Your task to perform on an android device: turn off javascript in the chrome app Image 0: 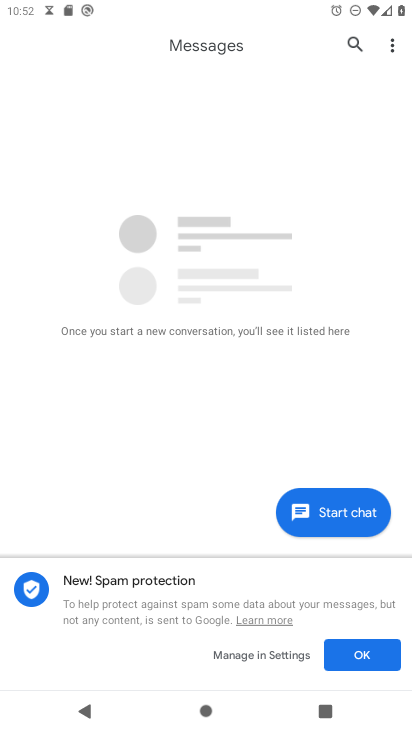
Step 0: press back button
Your task to perform on an android device: turn off javascript in the chrome app Image 1: 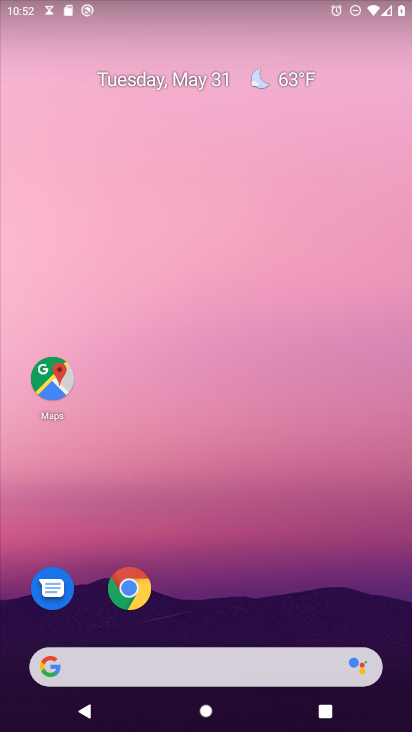
Step 1: click (129, 587)
Your task to perform on an android device: turn off javascript in the chrome app Image 2: 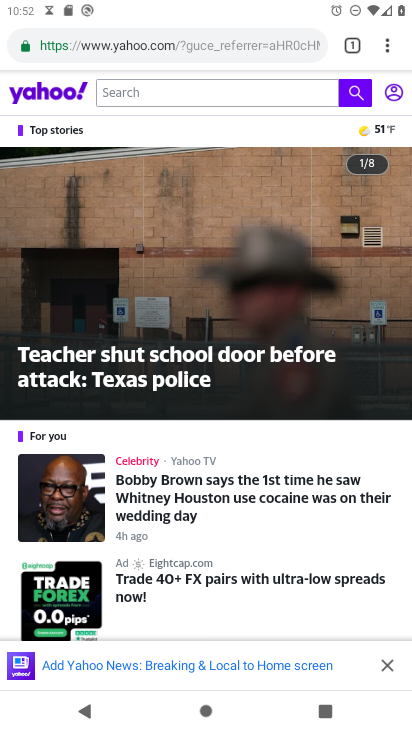
Step 2: click (386, 45)
Your task to perform on an android device: turn off javascript in the chrome app Image 3: 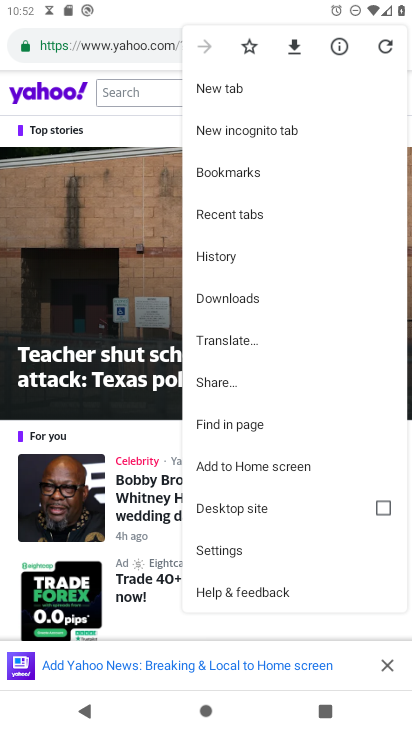
Step 3: click (223, 551)
Your task to perform on an android device: turn off javascript in the chrome app Image 4: 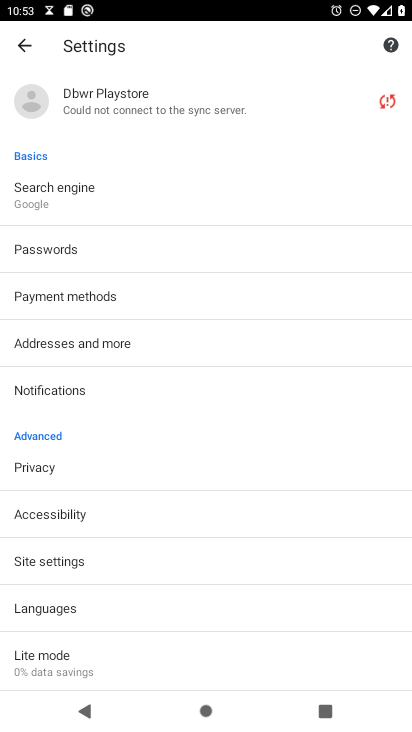
Step 4: click (58, 562)
Your task to perform on an android device: turn off javascript in the chrome app Image 5: 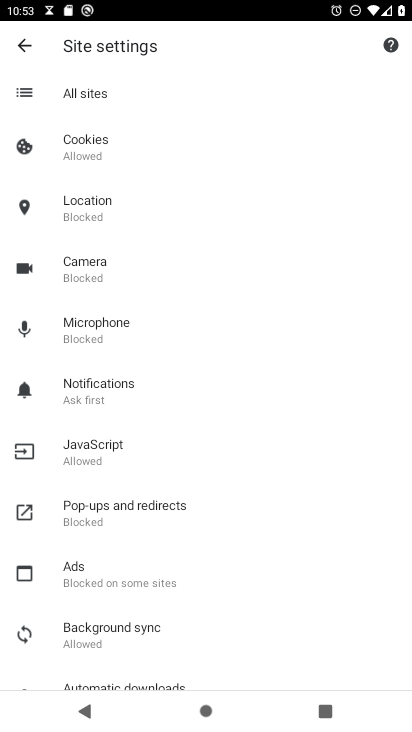
Step 5: click (74, 442)
Your task to perform on an android device: turn off javascript in the chrome app Image 6: 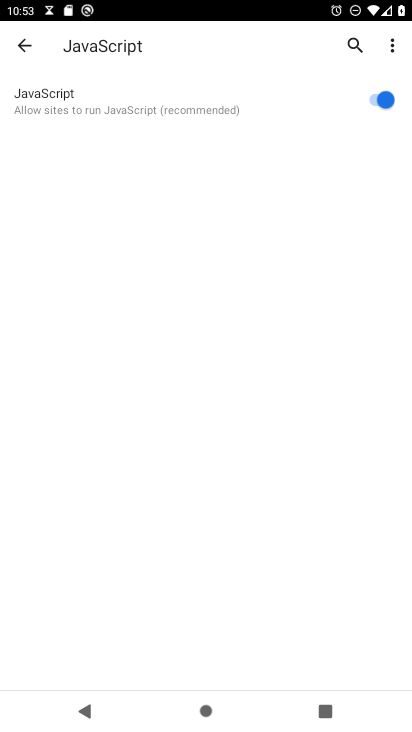
Step 6: click (375, 99)
Your task to perform on an android device: turn off javascript in the chrome app Image 7: 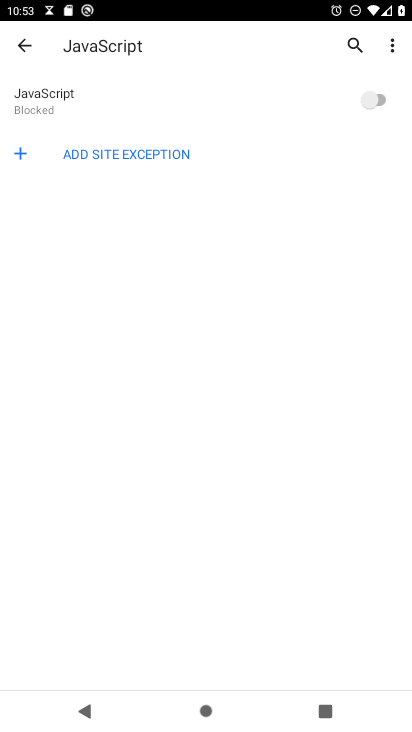
Step 7: task complete